Your task to perform on an android device: open wifi settings Image 0: 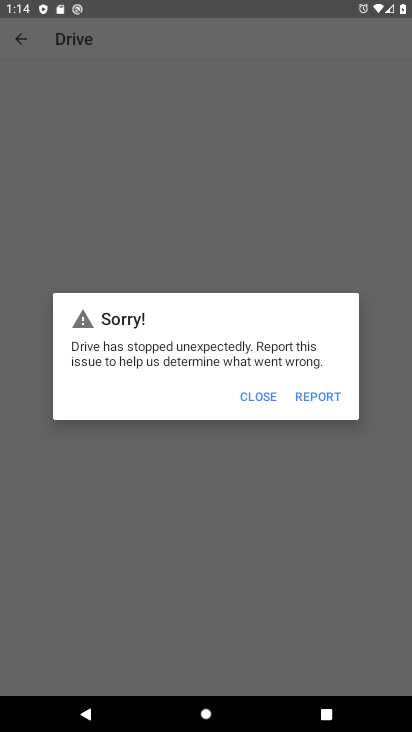
Step 0: press home button
Your task to perform on an android device: open wifi settings Image 1: 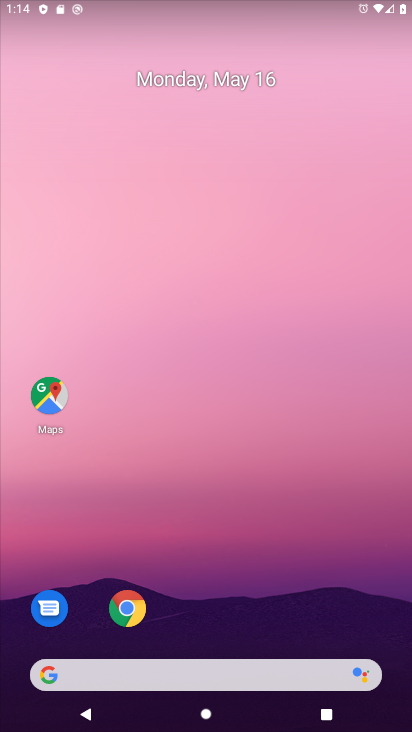
Step 1: drag from (195, 562) to (209, 105)
Your task to perform on an android device: open wifi settings Image 2: 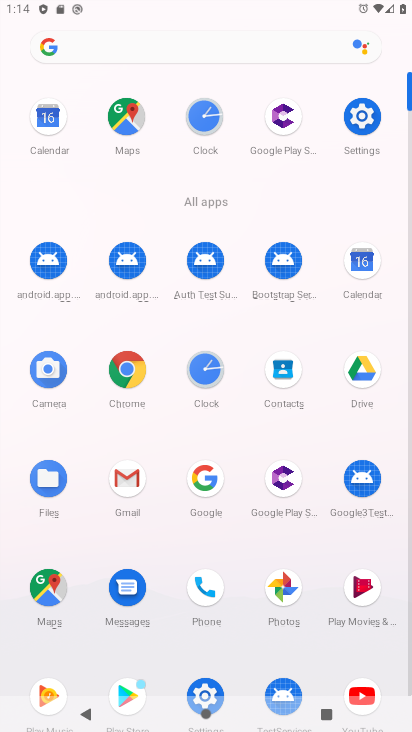
Step 2: click (368, 123)
Your task to perform on an android device: open wifi settings Image 3: 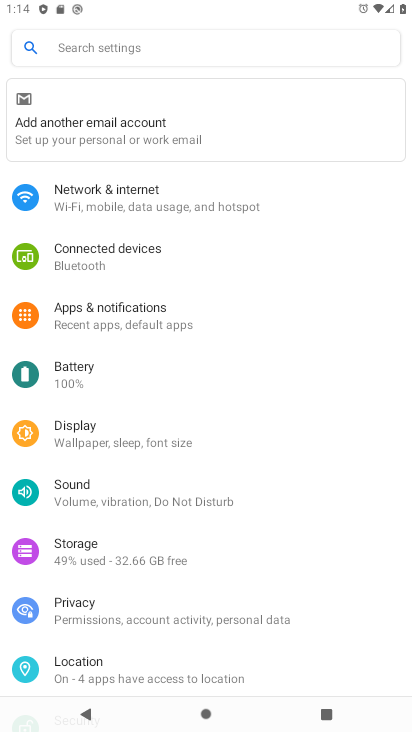
Step 3: click (172, 202)
Your task to perform on an android device: open wifi settings Image 4: 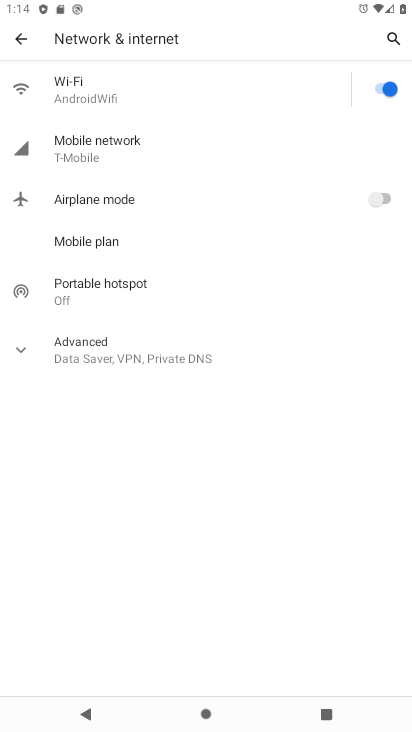
Step 4: click (151, 100)
Your task to perform on an android device: open wifi settings Image 5: 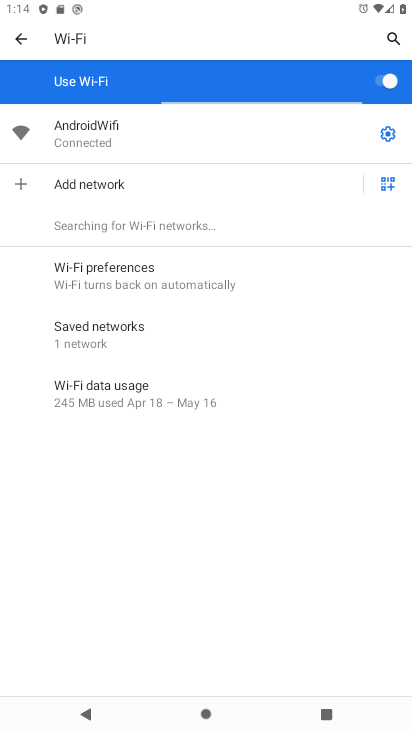
Step 5: task complete